Your task to perform on an android device: allow cookies in the chrome app Image 0: 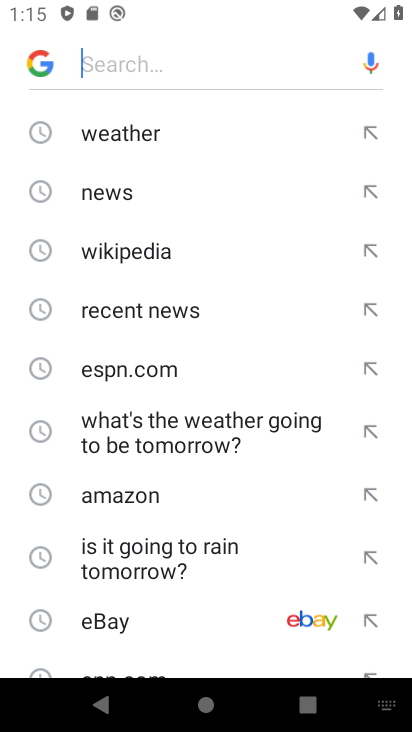
Step 0: press home button
Your task to perform on an android device: allow cookies in the chrome app Image 1: 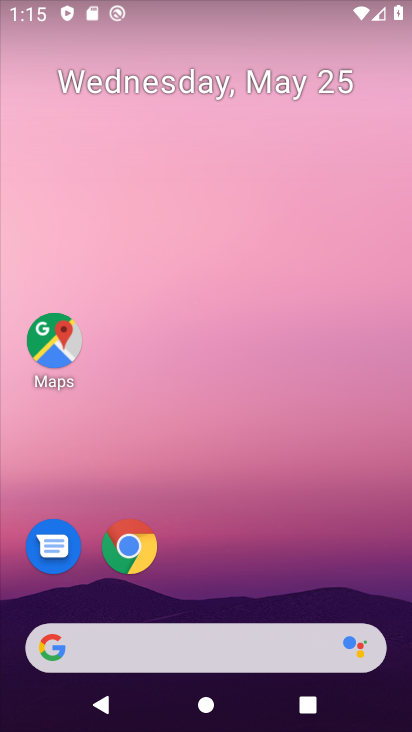
Step 1: drag from (364, 589) to (347, 252)
Your task to perform on an android device: allow cookies in the chrome app Image 2: 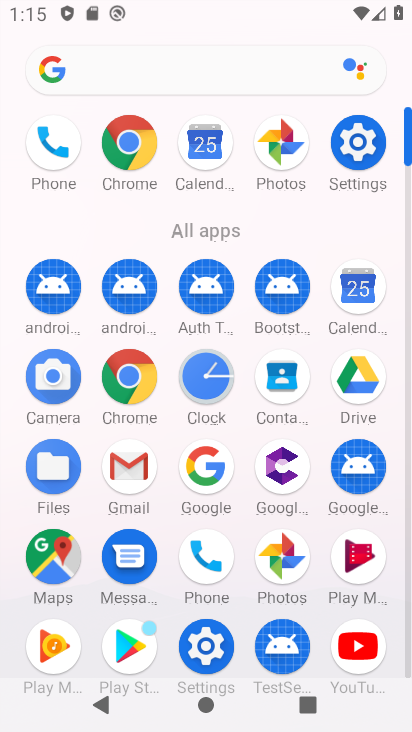
Step 2: click (139, 390)
Your task to perform on an android device: allow cookies in the chrome app Image 3: 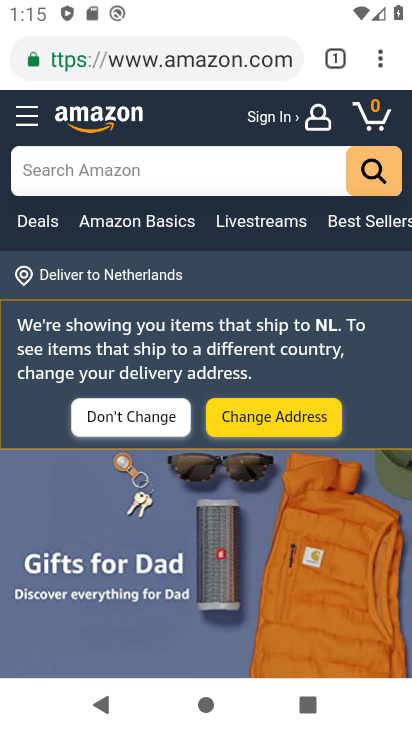
Step 3: click (380, 58)
Your task to perform on an android device: allow cookies in the chrome app Image 4: 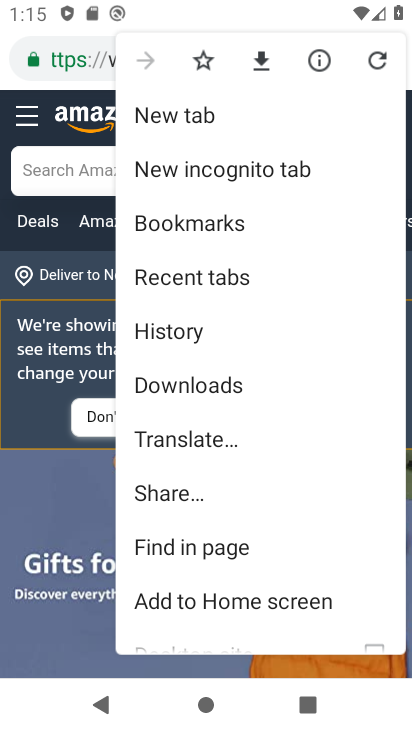
Step 4: drag from (337, 551) to (350, 413)
Your task to perform on an android device: allow cookies in the chrome app Image 5: 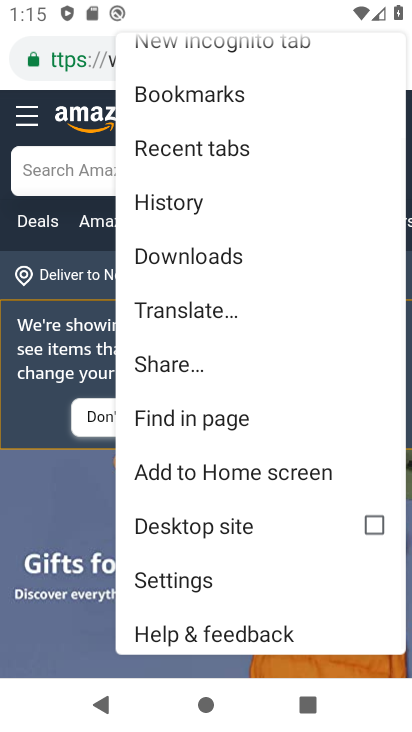
Step 5: drag from (308, 561) to (306, 390)
Your task to perform on an android device: allow cookies in the chrome app Image 6: 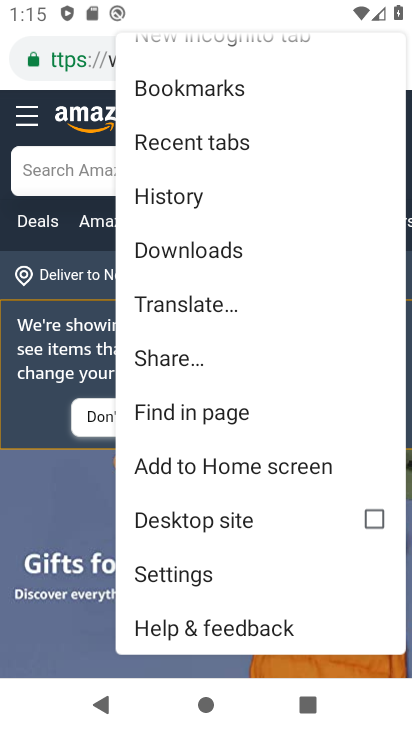
Step 6: click (194, 582)
Your task to perform on an android device: allow cookies in the chrome app Image 7: 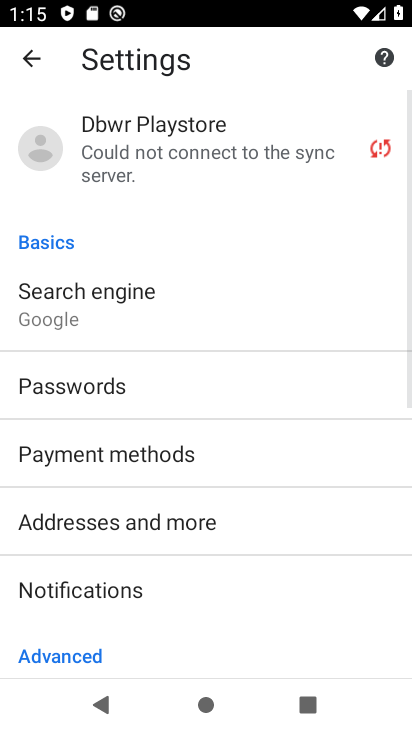
Step 7: drag from (293, 605) to (294, 482)
Your task to perform on an android device: allow cookies in the chrome app Image 8: 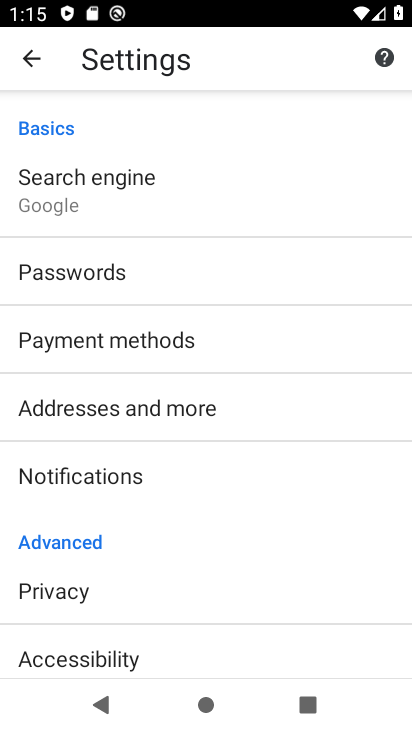
Step 8: drag from (312, 620) to (305, 484)
Your task to perform on an android device: allow cookies in the chrome app Image 9: 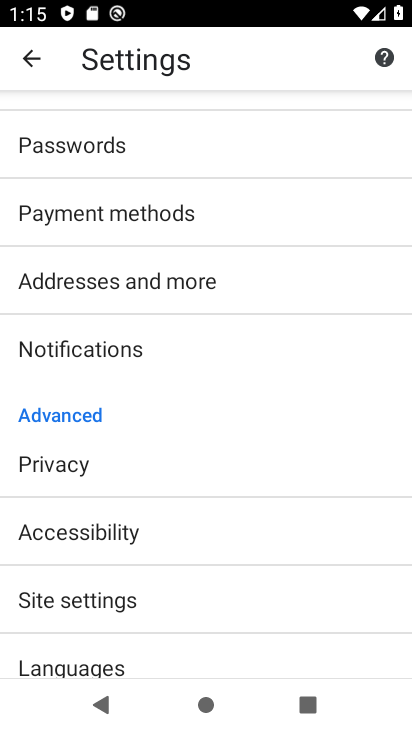
Step 9: drag from (314, 628) to (326, 496)
Your task to perform on an android device: allow cookies in the chrome app Image 10: 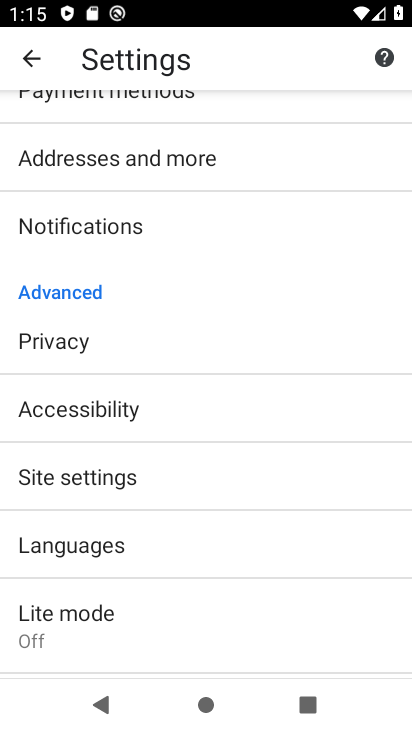
Step 10: drag from (331, 610) to (331, 514)
Your task to perform on an android device: allow cookies in the chrome app Image 11: 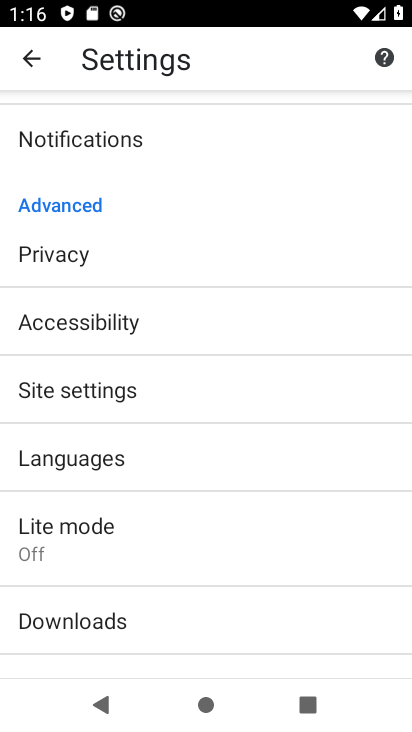
Step 11: drag from (345, 601) to (340, 495)
Your task to perform on an android device: allow cookies in the chrome app Image 12: 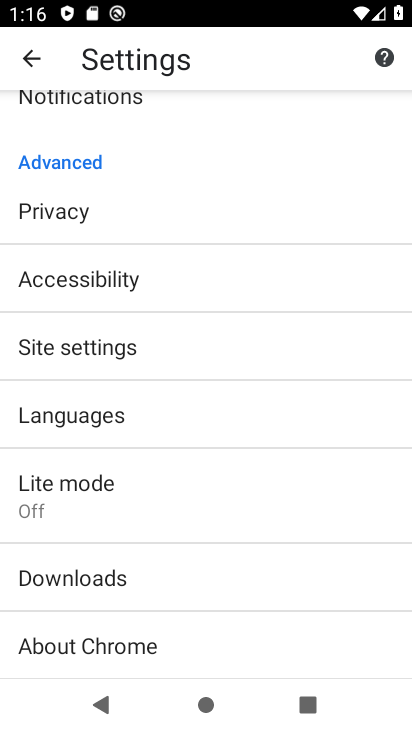
Step 12: drag from (352, 639) to (346, 520)
Your task to perform on an android device: allow cookies in the chrome app Image 13: 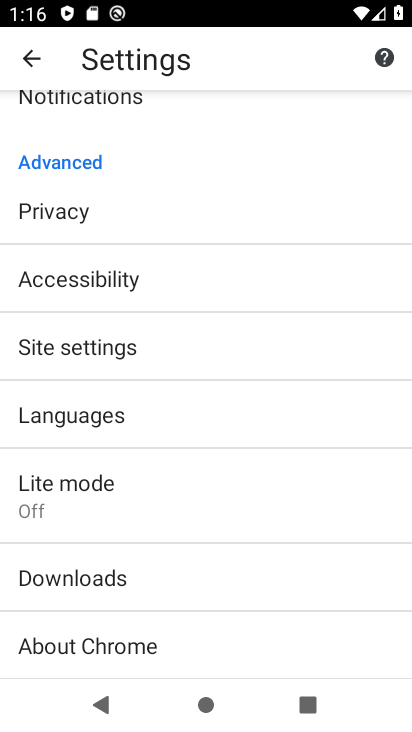
Step 13: drag from (350, 655) to (359, 535)
Your task to perform on an android device: allow cookies in the chrome app Image 14: 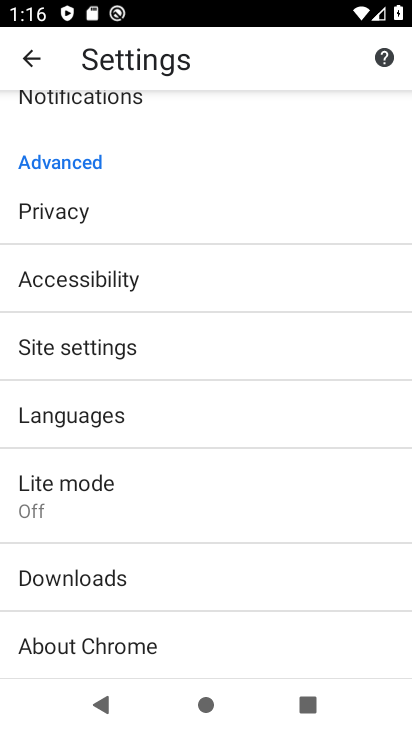
Step 14: drag from (331, 394) to (326, 501)
Your task to perform on an android device: allow cookies in the chrome app Image 15: 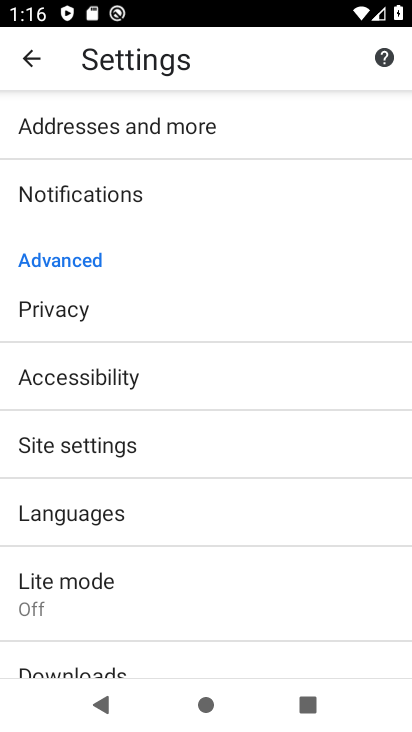
Step 15: click (256, 457)
Your task to perform on an android device: allow cookies in the chrome app Image 16: 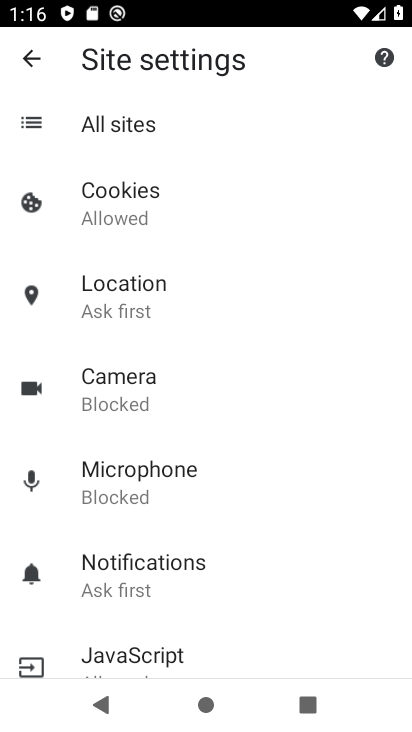
Step 16: drag from (296, 291) to (323, 416)
Your task to perform on an android device: allow cookies in the chrome app Image 17: 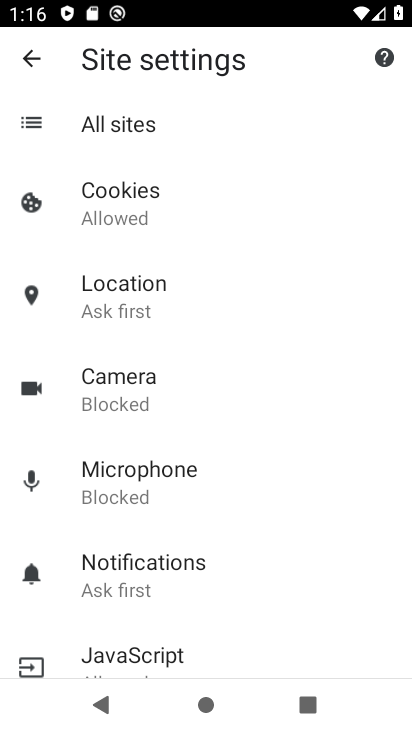
Step 17: click (158, 221)
Your task to perform on an android device: allow cookies in the chrome app Image 18: 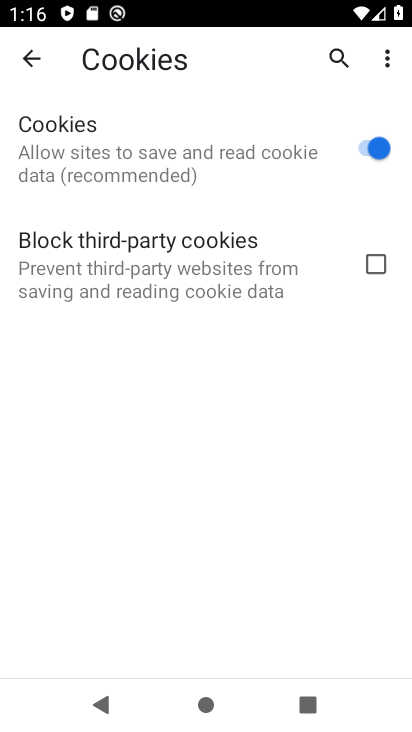
Step 18: task complete